Your task to perform on an android device: Go to Reddit.com Image 0: 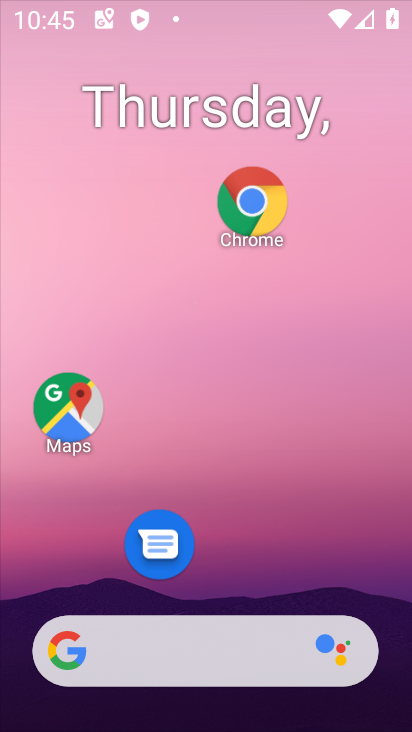
Step 0: drag from (223, 568) to (222, 69)
Your task to perform on an android device: Go to Reddit.com Image 1: 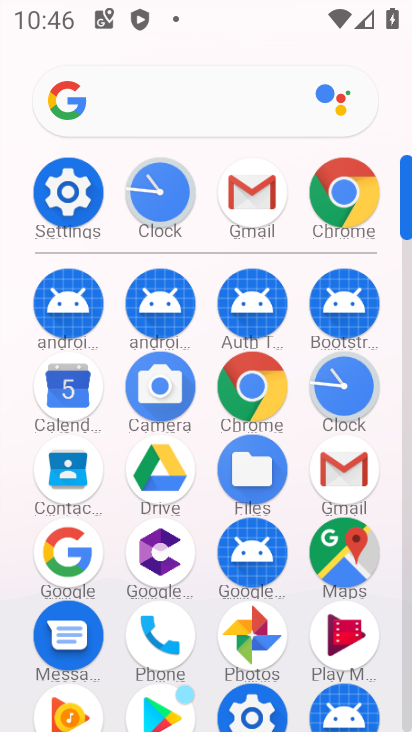
Step 1: click (258, 378)
Your task to perform on an android device: Go to Reddit.com Image 2: 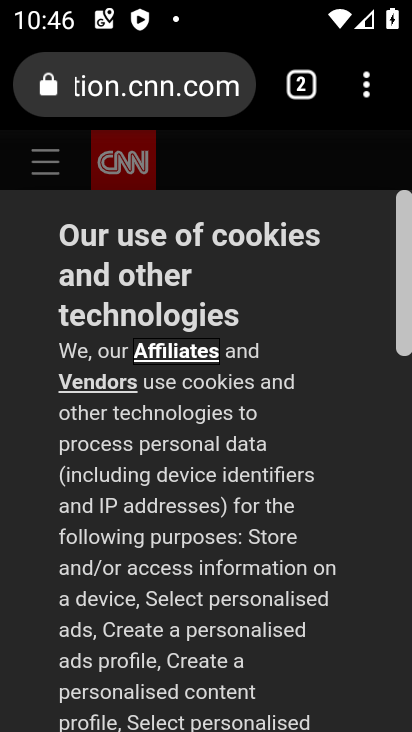
Step 2: click (306, 90)
Your task to perform on an android device: Go to Reddit.com Image 3: 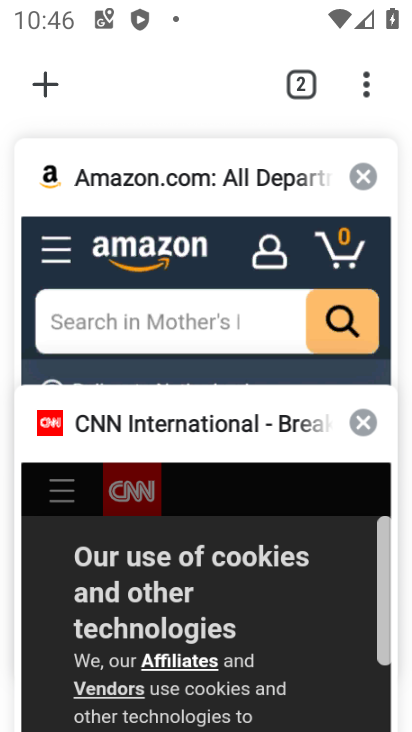
Step 3: click (364, 170)
Your task to perform on an android device: Go to Reddit.com Image 4: 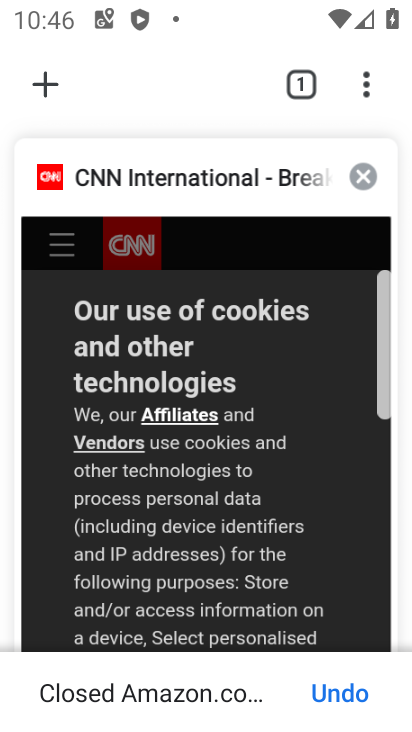
Step 4: click (358, 176)
Your task to perform on an android device: Go to Reddit.com Image 5: 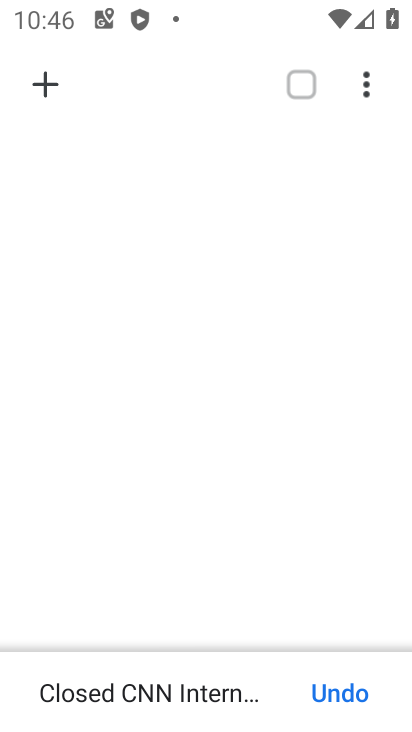
Step 5: click (45, 86)
Your task to perform on an android device: Go to Reddit.com Image 6: 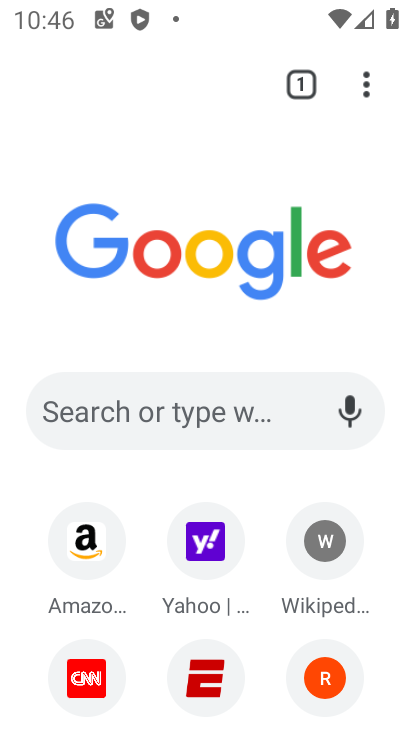
Step 6: drag from (269, 599) to (269, 384)
Your task to perform on an android device: Go to Reddit.com Image 7: 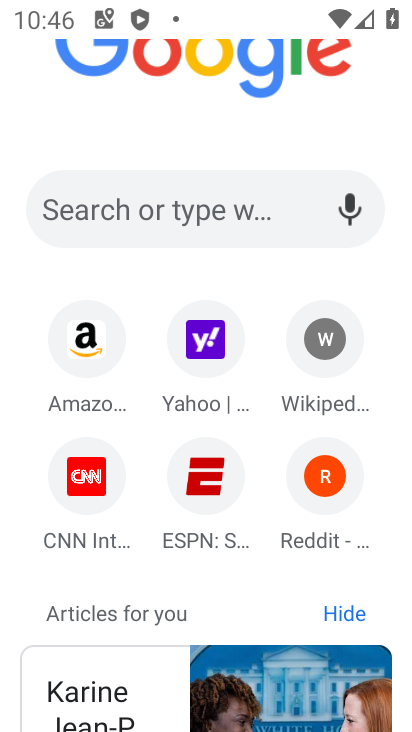
Step 7: click (320, 469)
Your task to perform on an android device: Go to Reddit.com Image 8: 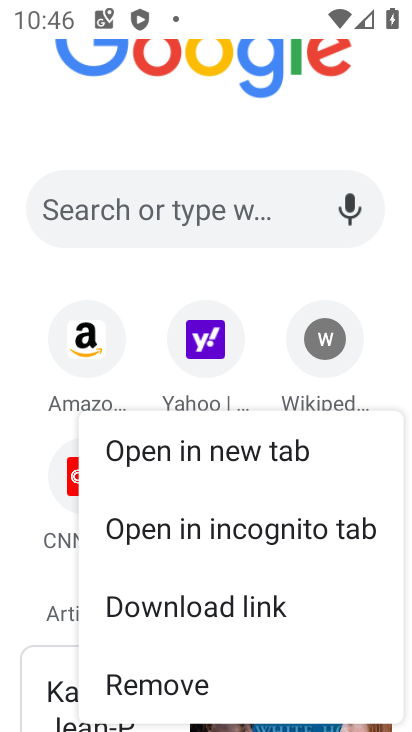
Step 8: click (80, 115)
Your task to perform on an android device: Go to Reddit.com Image 9: 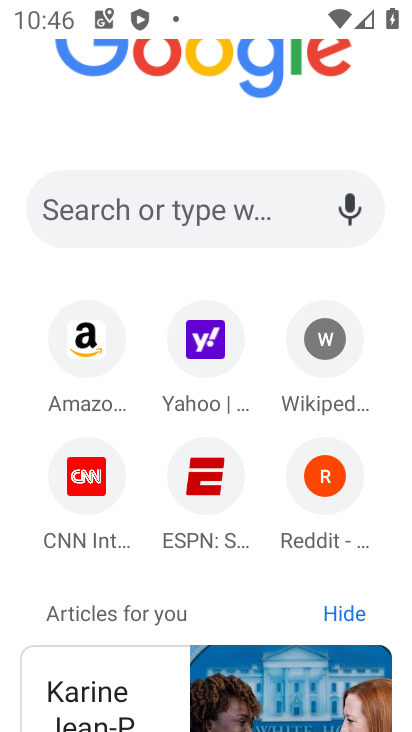
Step 9: click (295, 504)
Your task to perform on an android device: Go to Reddit.com Image 10: 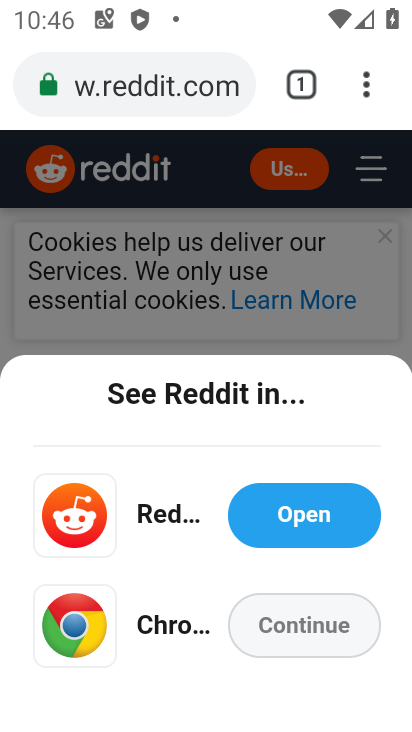
Step 10: click (294, 513)
Your task to perform on an android device: Go to Reddit.com Image 11: 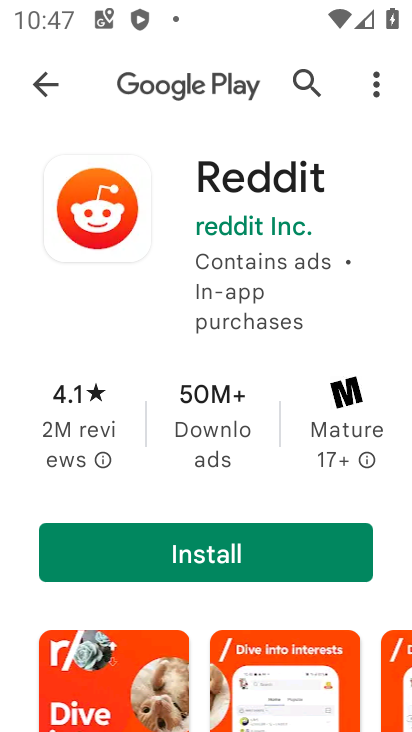
Step 11: click (38, 74)
Your task to perform on an android device: Go to Reddit.com Image 12: 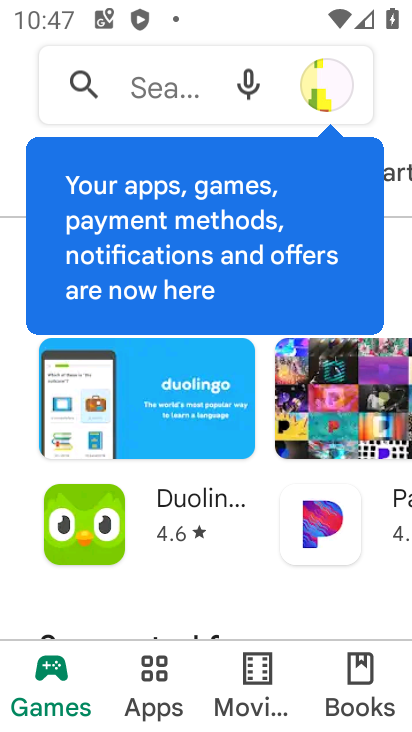
Step 12: press enter
Your task to perform on an android device: Go to Reddit.com Image 13: 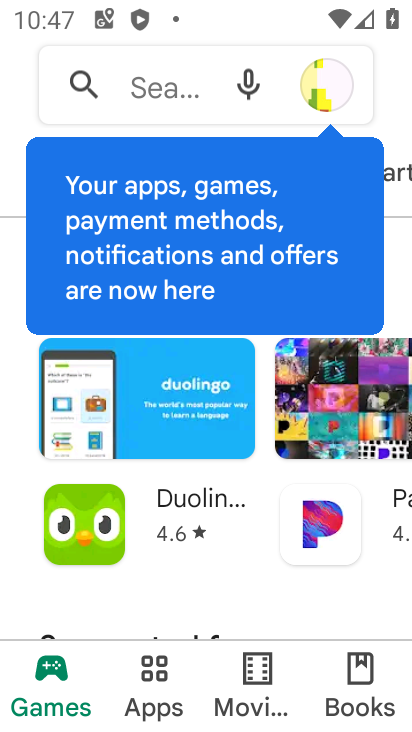
Step 13: press back button
Your task to perform on an android device: Go to Reddit.com Image 14: 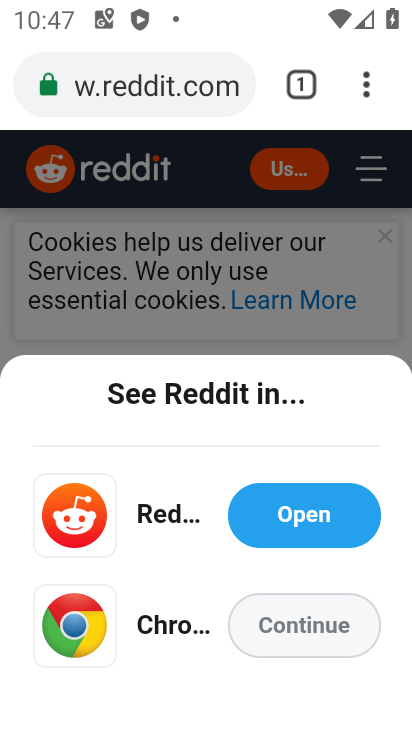
Step 14: click (310, 633)
Your task to perform on an android device: Go to Reddit.com Image 15: 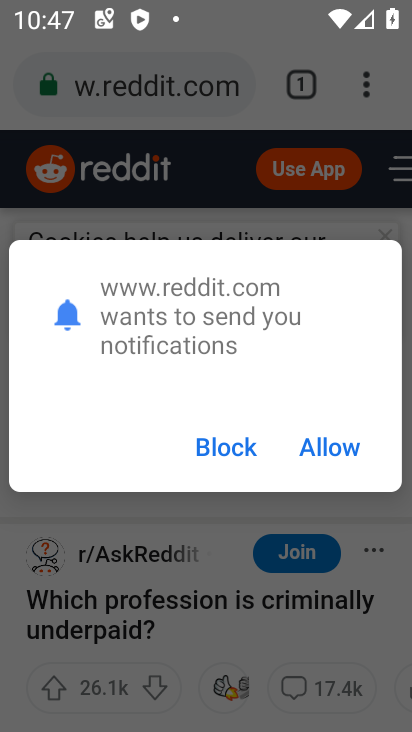
Step 15: click (339, 456)
Your task to perform on an android device: Go to Reddit.com Image 16: 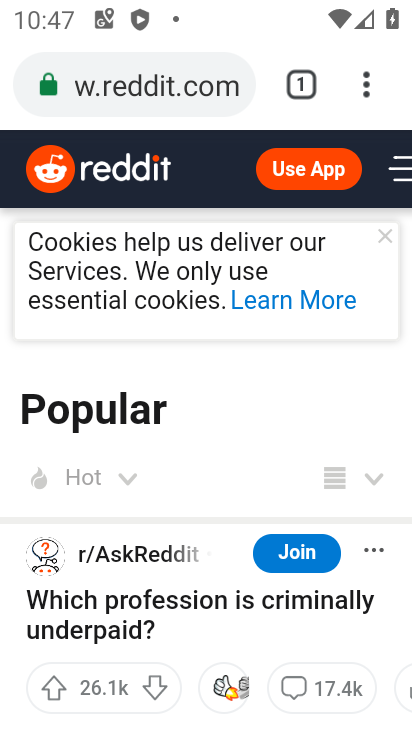
Step 16: task complete